Your task to perform on an android device: Open the calendar app, open the side menu, and click the "Day" option Image 0: 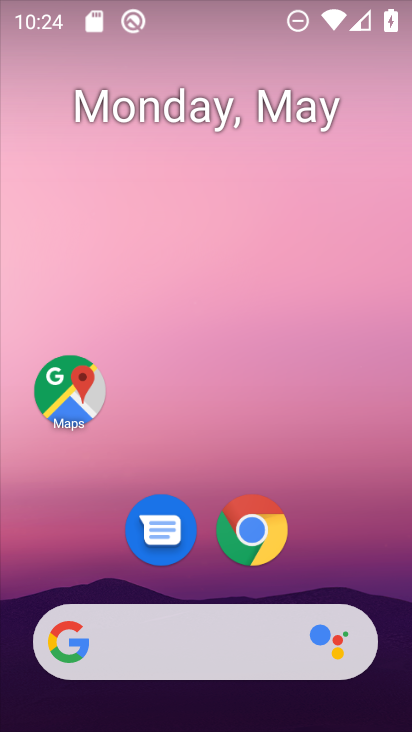
Step 0: drag from (184, 630) to (149, 281)
Your task to perform on an android device: Open the calendar app, open the side menu, and click the "Day" option Image 1: 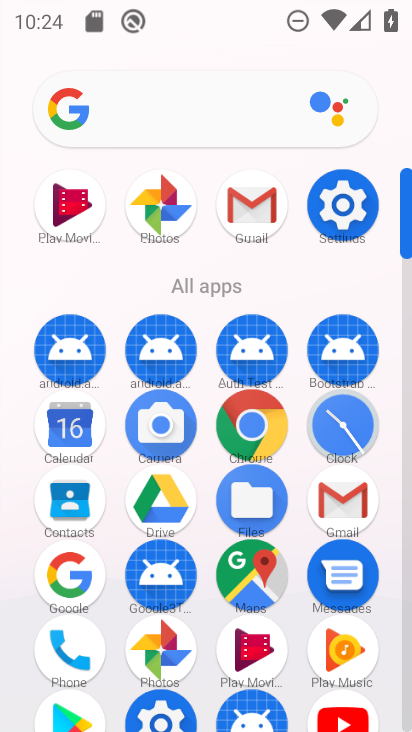
Step 1: click (88, 437)
Your task to perform on an android device: Open the calendar app, open the side menu, and click the "Day" option Image 2: 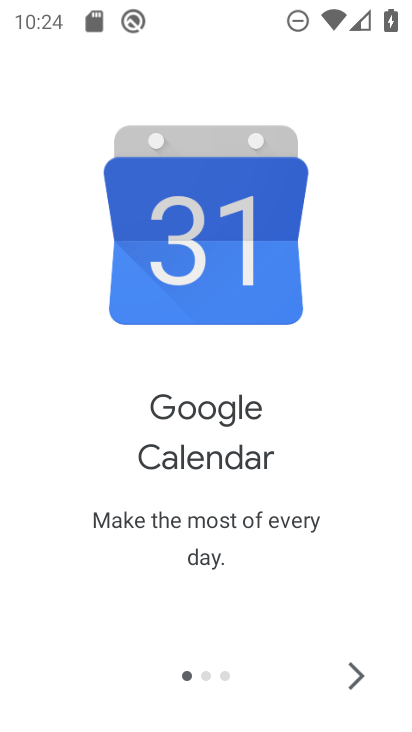
Step 2: click (361, 685)
Your task to perform on an android device: Open the calendar app, open the side menu, and click the "Day" option Image 3: 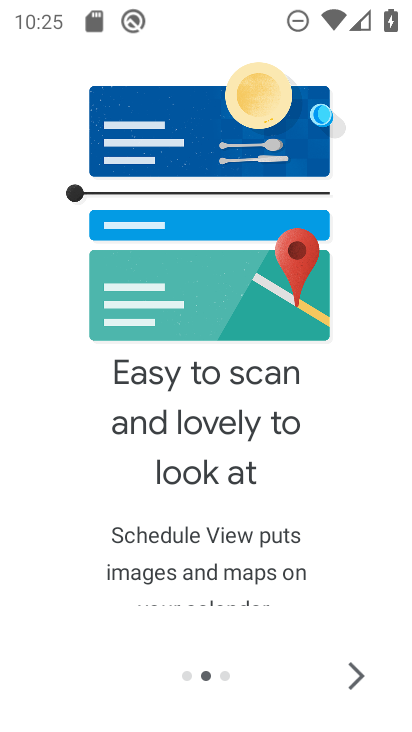
Step 3: click (360, 680)
Your task to perform on an android device: Open the calendar app, open the side menu, and click the "Day" option Image 4: 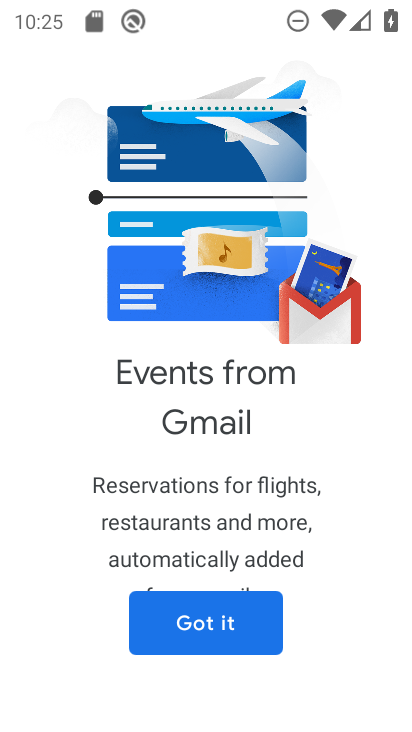
Step 4: click (214, 633)
Your task to perform on an android device: Open the calendar app, open the side menu, and click the "Day" option Image 5: 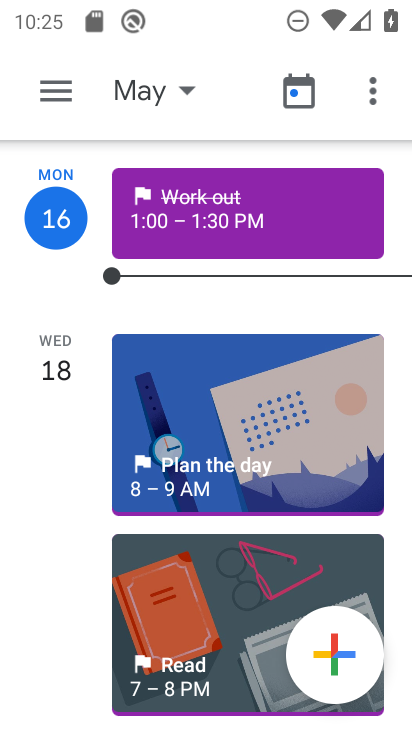
Step 5: click (67, 84)
Your task to perform on an android device: Open the calendar app, open the side menu, and click the "Day" option Image 6: 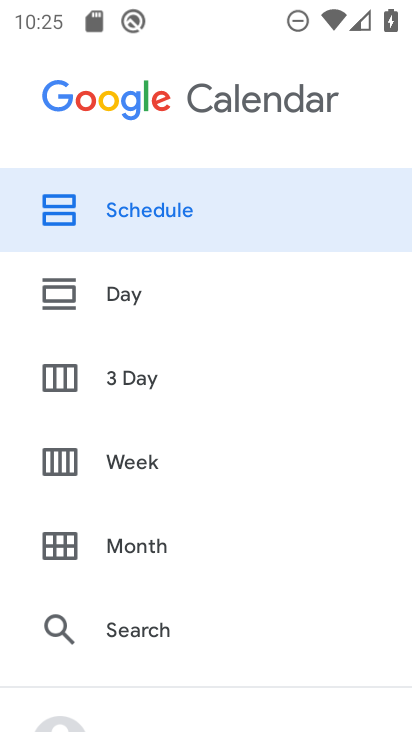
Step 6: click (139, 308)
Your task to perform on an android device: Open the calendar app, open the side menu, and click the "Day" option Image 7: 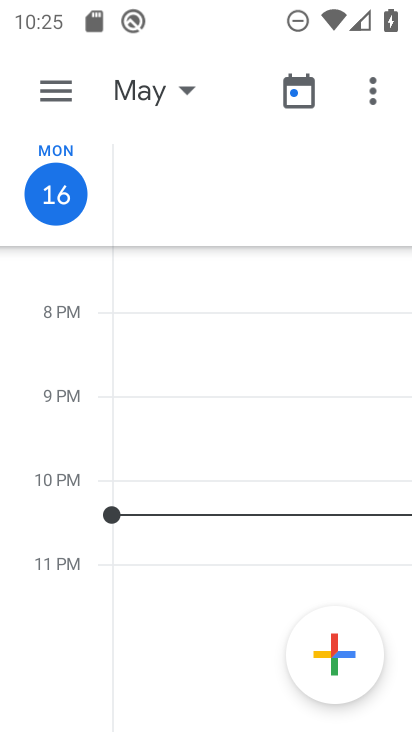
Step 7: task complete